Your task to perform on an android device: show emergency info Image 0: 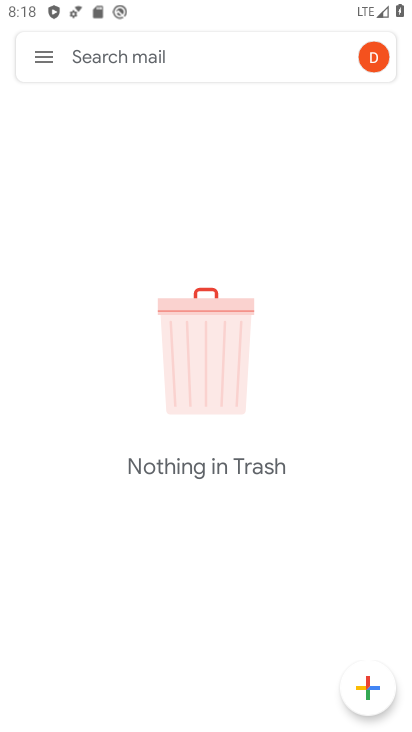
Step 0: press back button
Your task to perform on an android device: show emergency info Image 1: 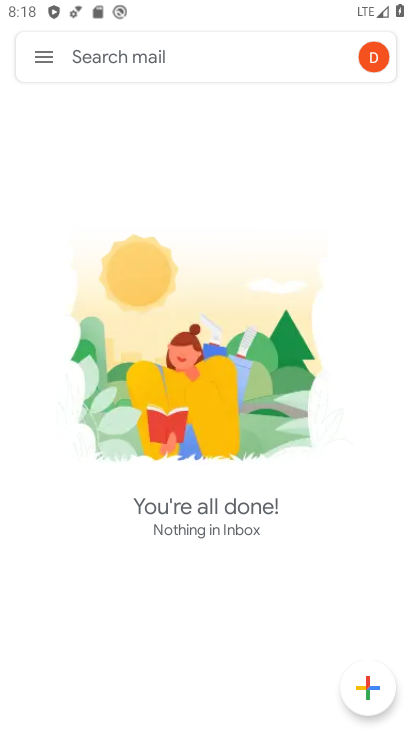
Step 1: press back button
Your task to perform on an android device: show emergency info Image 2: 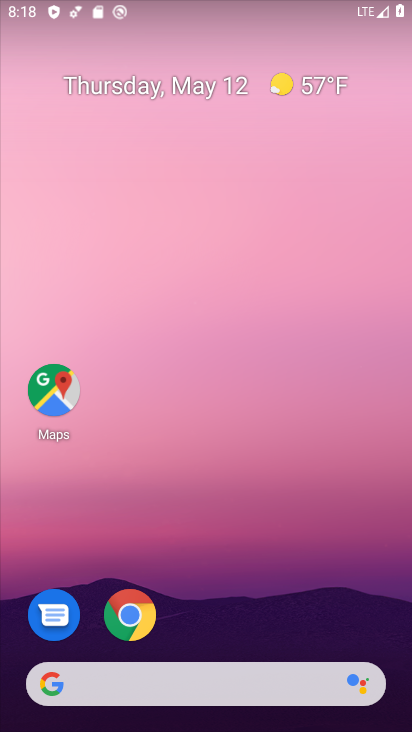
Step 2: drag from (267, 512) to (242, 27)
Your task to perform on an android device: show emergency info Image 3: 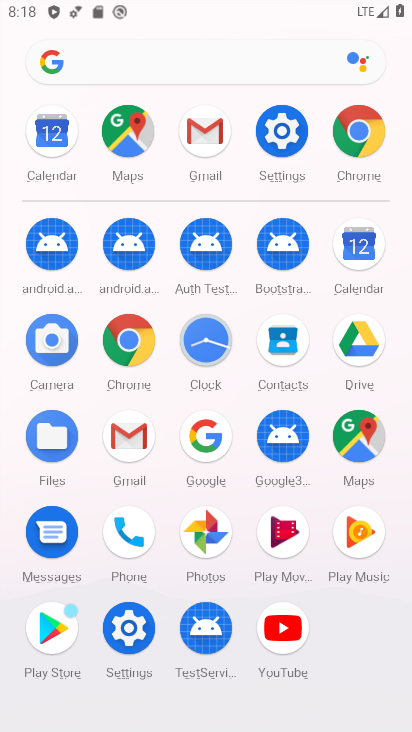
Step 3: drag from (5, 494) to (3, 218)
Your task to perform on an android device: show emergency info Image 4: 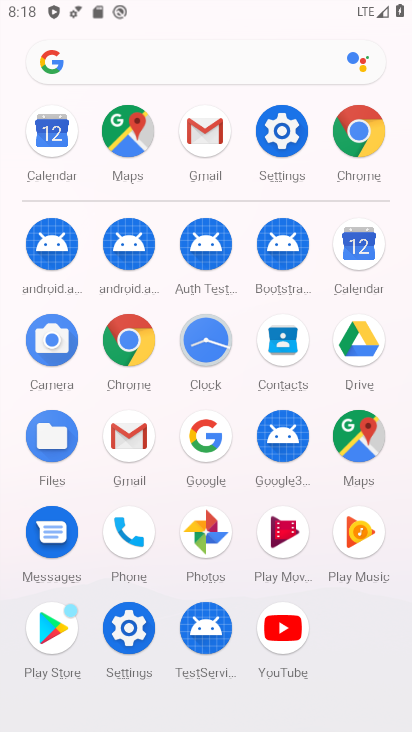
Step 4: click (128, 631)
Your task to perform on an android device: show emergency info Image 5: 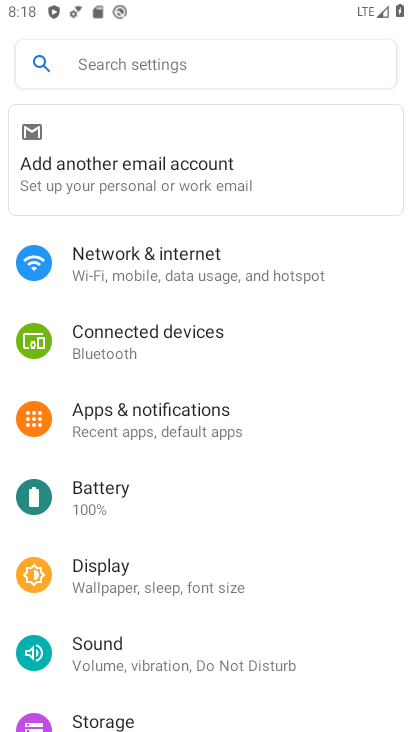
Step 5: drag from (236, 606) to (295, 194)
Your task to perform on an android device: show emergency info Image 6: 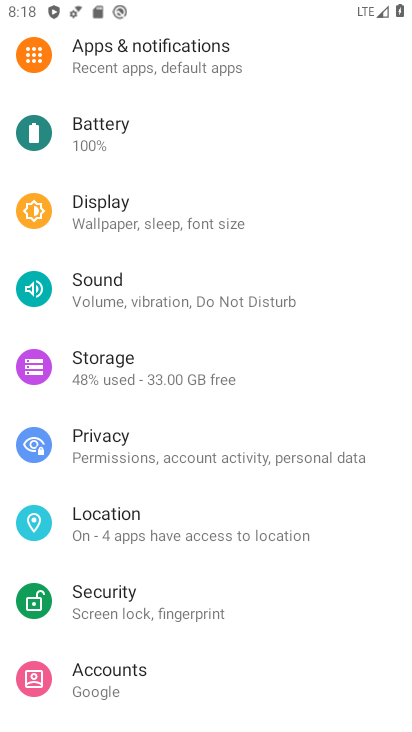
Step 6: drag from (229, 557) to (282, 137)
Your task to perform on an android device: show emergency info Image 7: 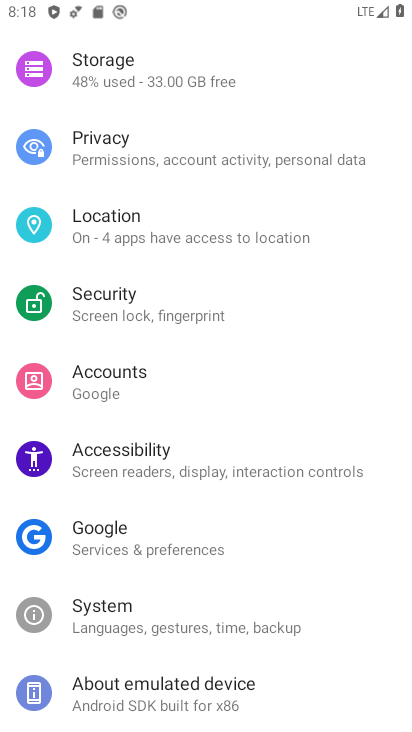
Step 7: click (164, 687)
Your task to perform on an android device: show emergency info Image 8: 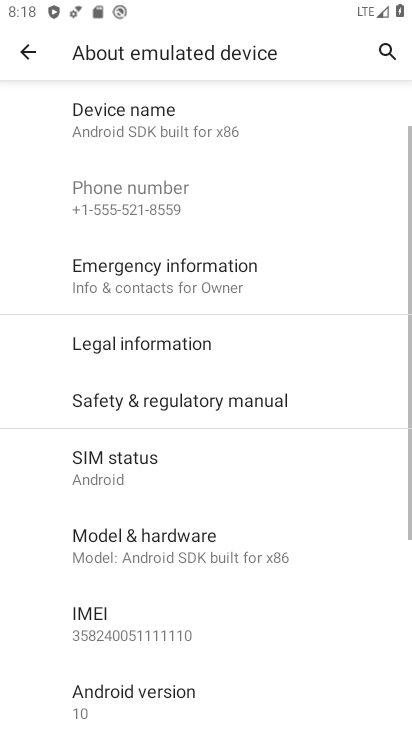
Step 8: click (212, 278)
Your task to perform on an android device: show emergency info Image 9: 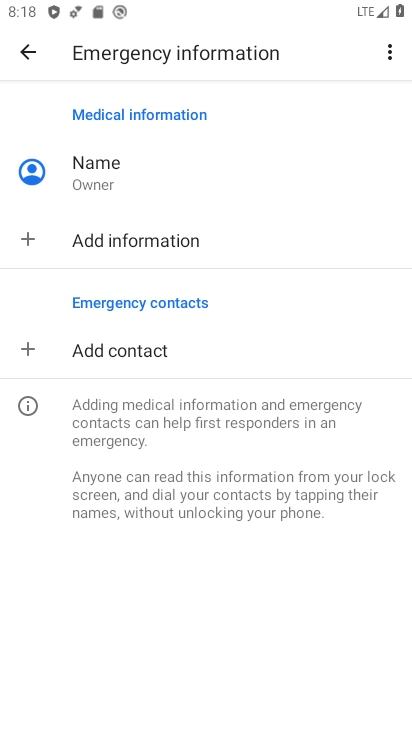
Step 9: task complete